Your task to perform on an android device: open the mobile data screen to see how much data has been used Image 0: 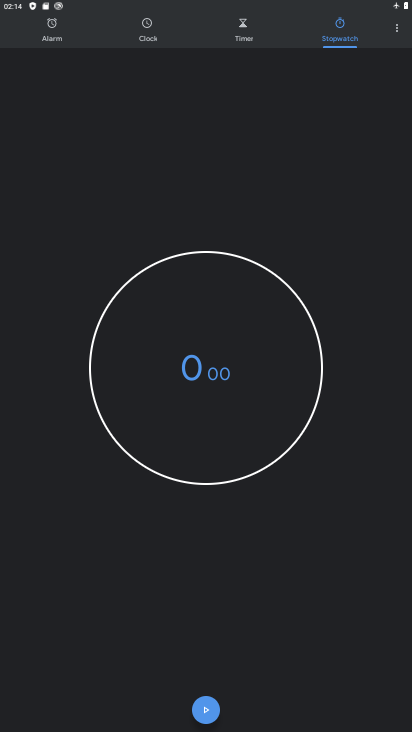
Step 0: press home button
Your task to perform on an android device: open the mobile data screen to see how much data has been used Image 1: 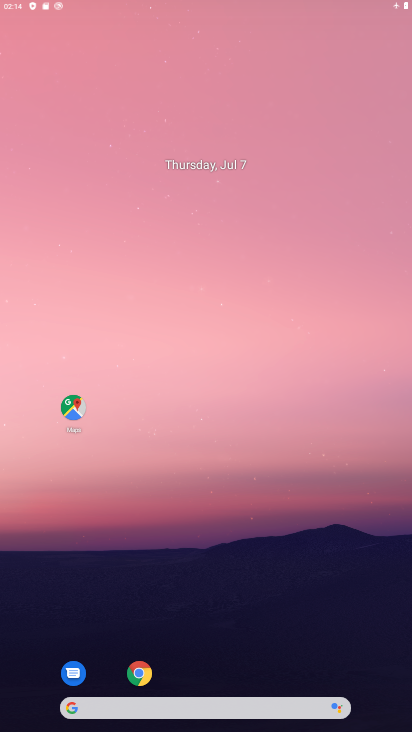
Step 1: drag from (218, 624) to (234, 217)
Your task to perform on an android device: open the mobile data screen to see how much data has been used Image 2: 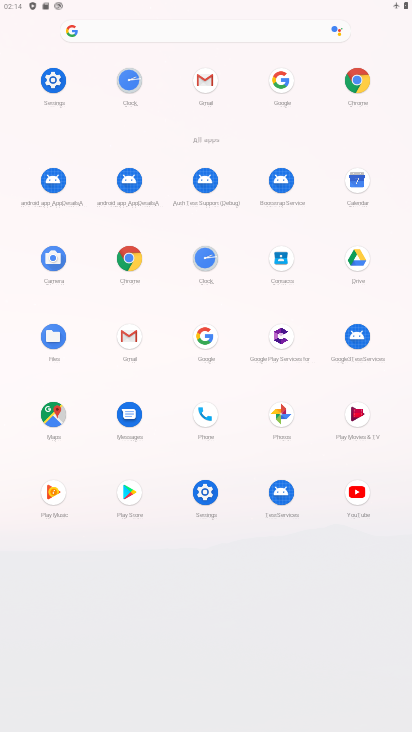
Step 2: click (50, 82)
Your task to perform on an android device: open the mobile data screen to see how much data has been used Image 3: 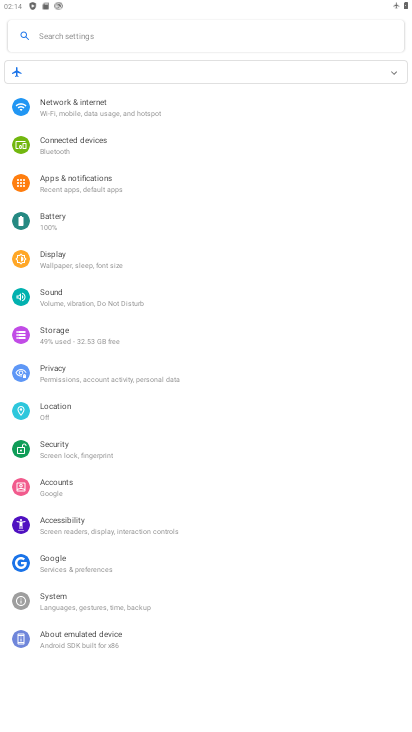
Step 3: click (133, 113)
Your task to perform on an android device: open the mobile data screen to see how much data has been used Image 4: 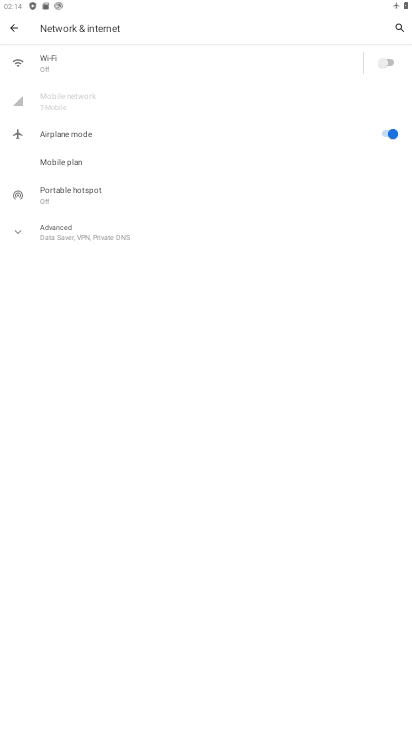
Step 4: click (90, 108)
Your task to perform on an android device: open the mobile data screen to see how much data has been used Image 5: 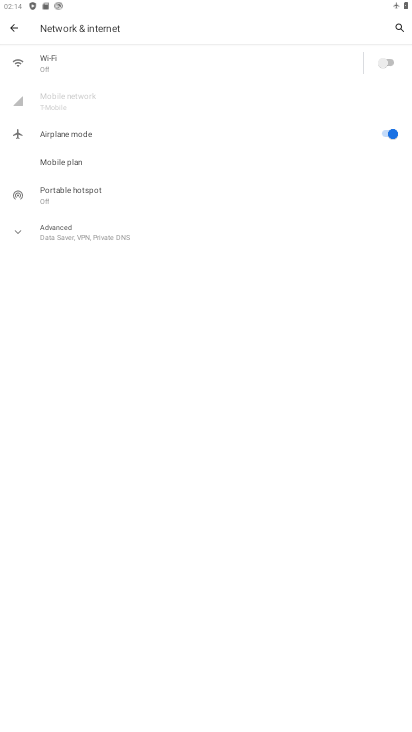
Step 5: task complete